Your task to perform on an android device: toggle airplane mode Image 0: 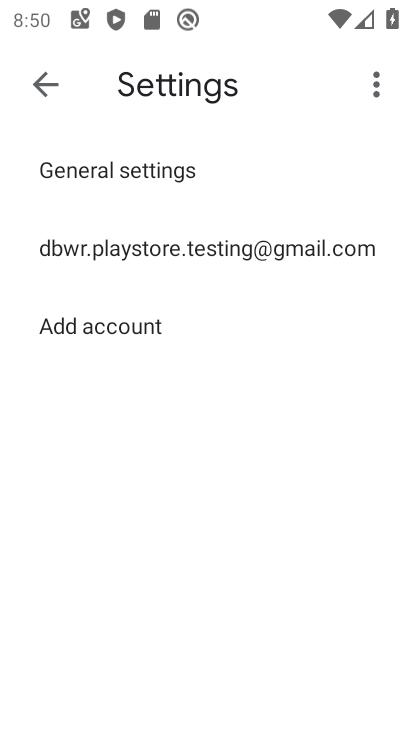
Step 0: press home button
Your task to perform on an android device: toggle airplane mode Image 1: 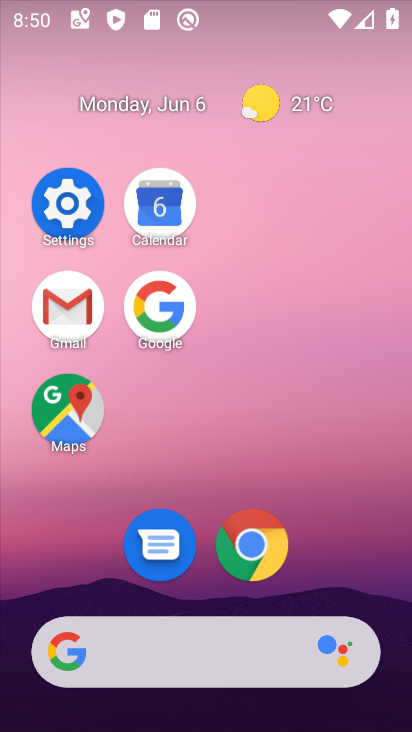
Step 1: click (57, 188)
Your task to perform on an android device: toggle airplane mode Image 2: 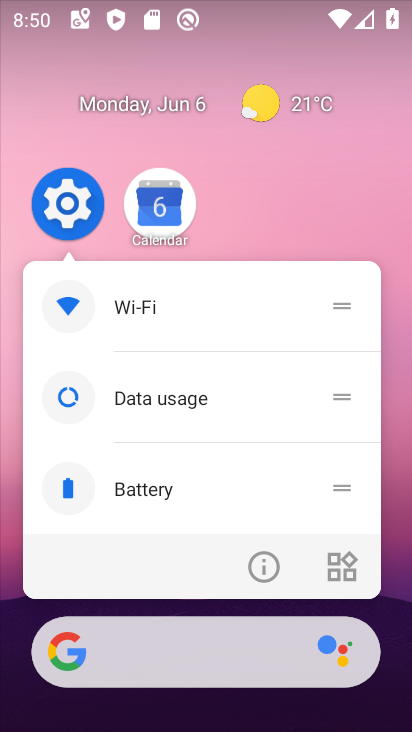
Step 2: click (57, 188)
Your task to perform on an android device: toggle airplane mode Image 3: 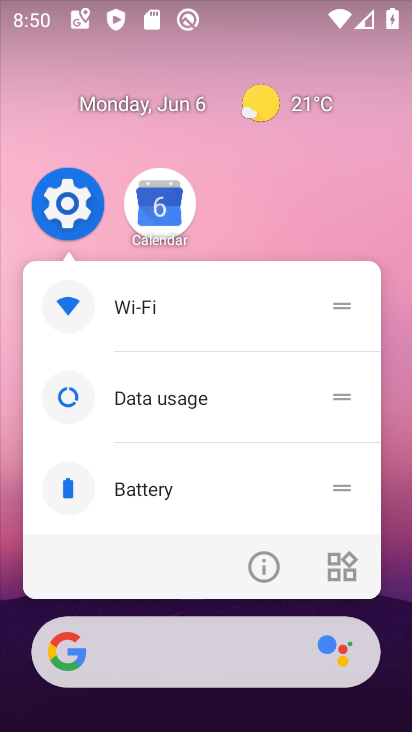
Step 3: click (57, 188)
Your task to perform on an android device: toggle airplane mode Image 4: 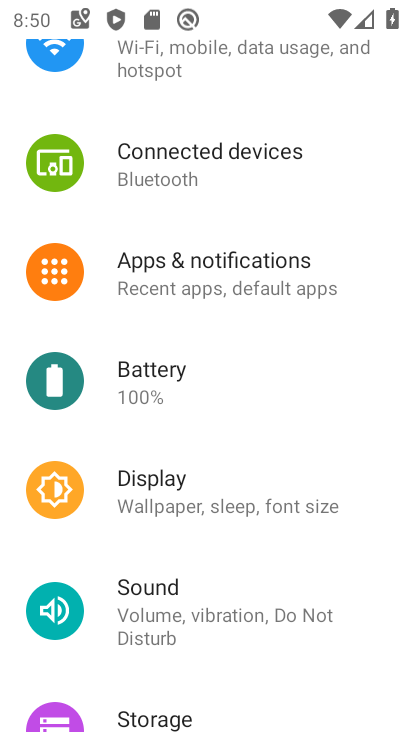
Step 4: click (327, 61)
Your task to perform on an android device: toggle airplane mode Image 5: 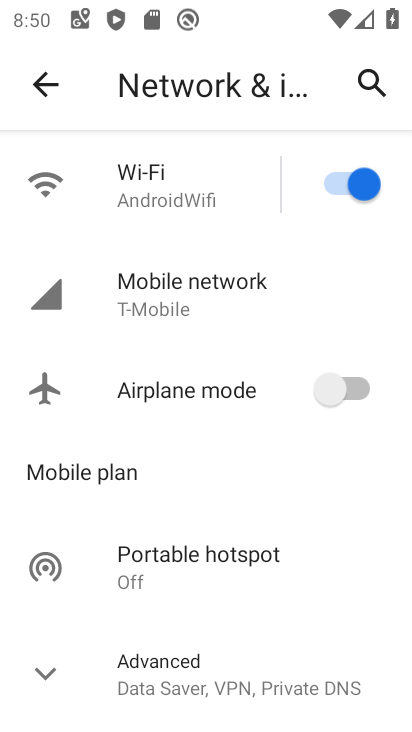
Step 5: click (351, 372)
Your task to perform on an android device: toggle airplane mode Image 6: 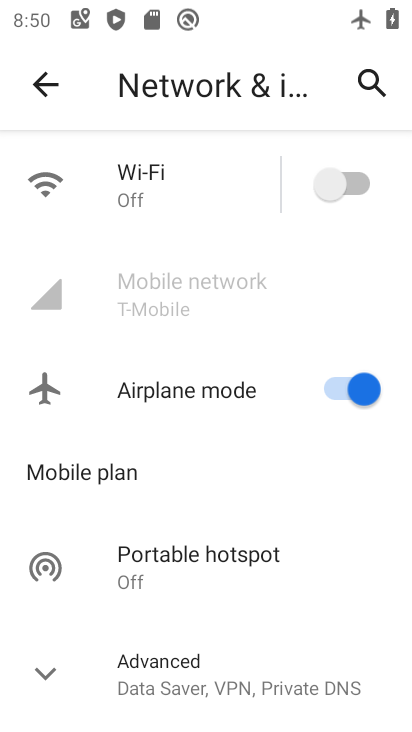
Step 6: task complete